Your task to perform on an android device: Open ESPN.com Image 0: 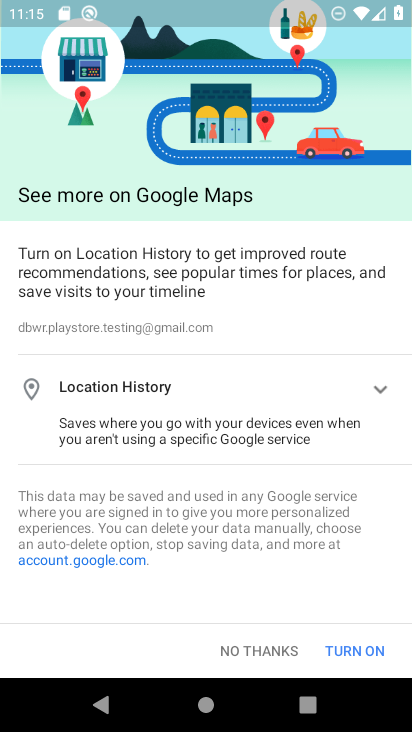
Step 0: press home button
Your task to perform on an android device: Open ESPN.com Image 1: 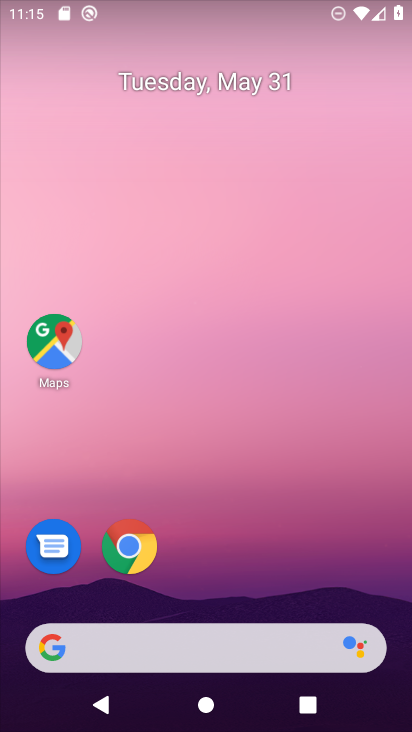
Step 1: drag from (121, 689) to (269, 93)
Your task to perform on an android device: Open ESPN.com Image 2: 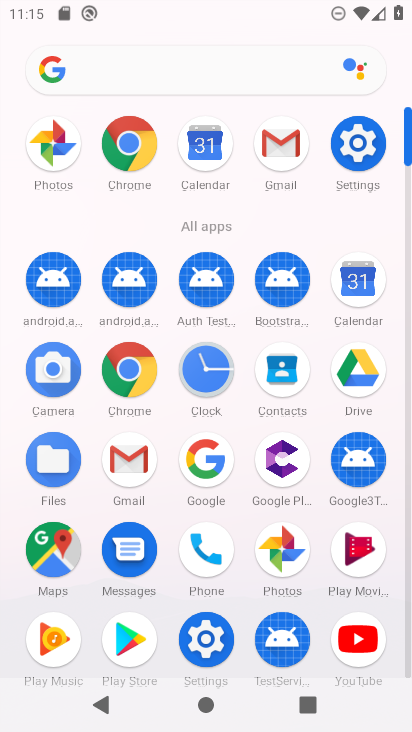
Step 2: click (136, 376)
Your task to perform on an android device: Open ESPN.com Image 3: 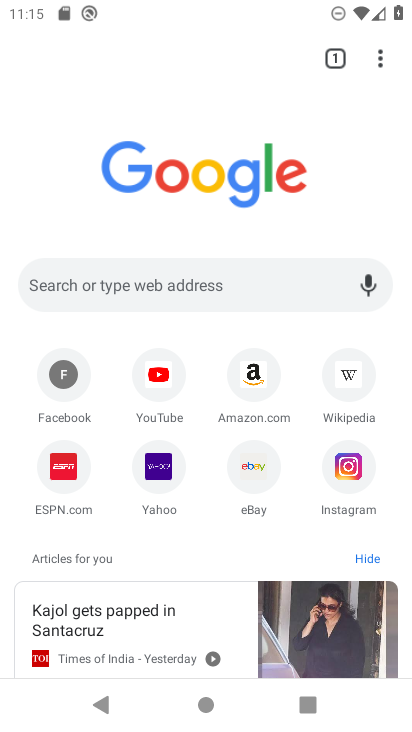
Step 3: click (77, 465)
Your task to perform on an android device: Open ESPN.com Image 4: 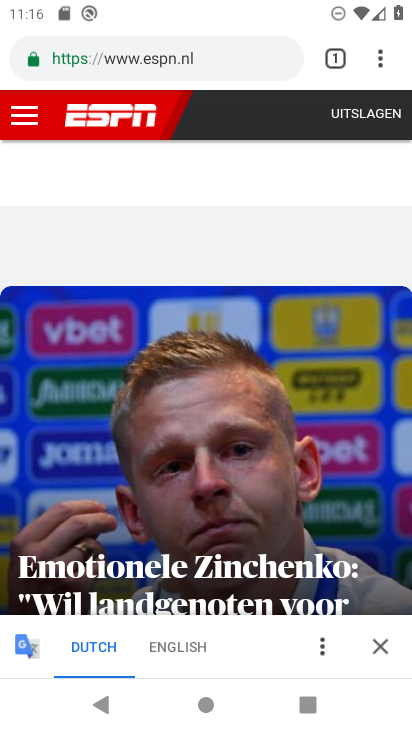
Step 4: task complete